Your task to perform on an android device: allow cookies in the chrome app Image 0: 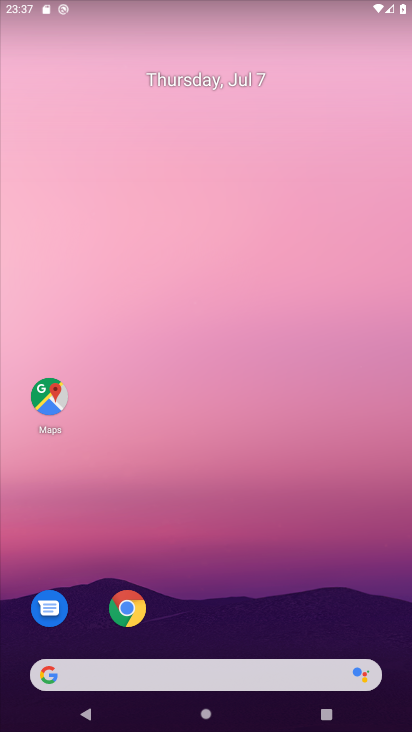
Step 0: drag from (237, 604) to (266, 147)
Your task to perform on an android device: allow cookies in the chrome app Image 1: 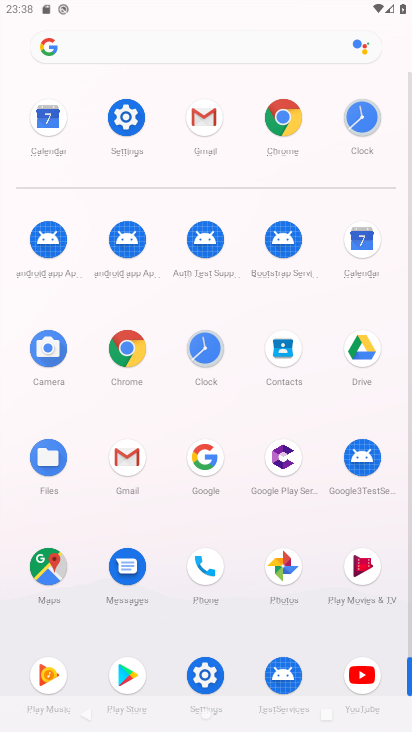
Step 1: click (284, 116)
Your task to perform on an android device: allow cookies in the chrome app Image 2: 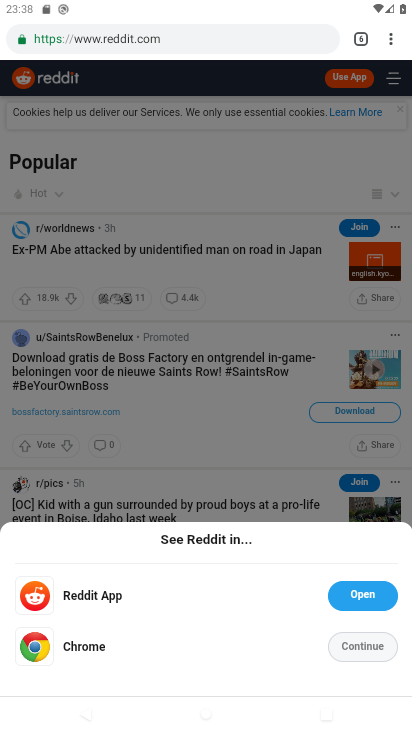
Step 2: click (298, 201)
Your task to perform on an android device: allow cookies in the chrome app Image 3: 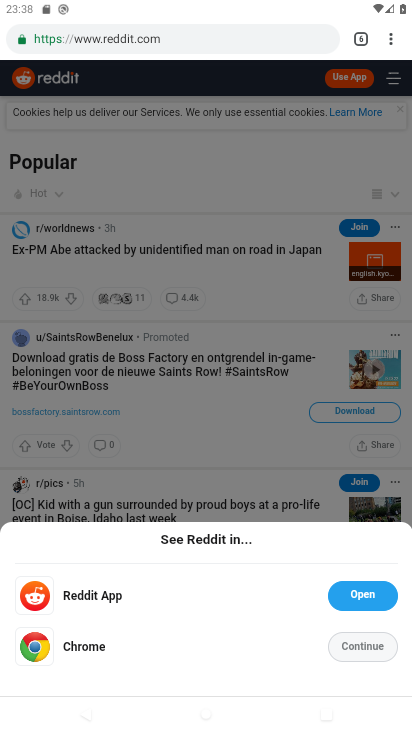
Step 3: click (386, 30)
Your task to perform on an android device: allow cookies in the chrome app Image 4: 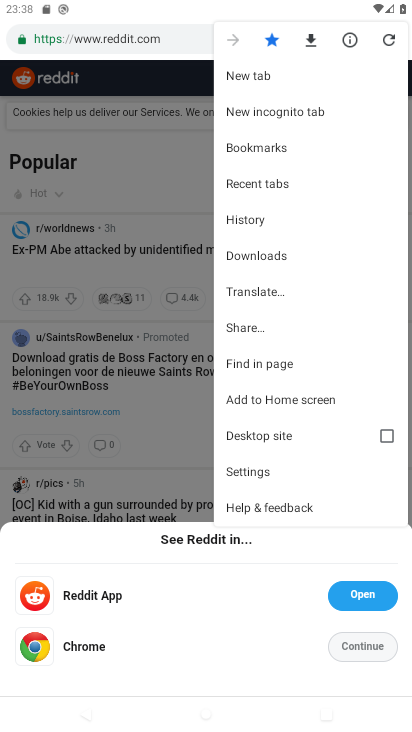
Step 4: click (265, 466)
Your task to perform on an android device: allow cookies in the chrome app Image 5: 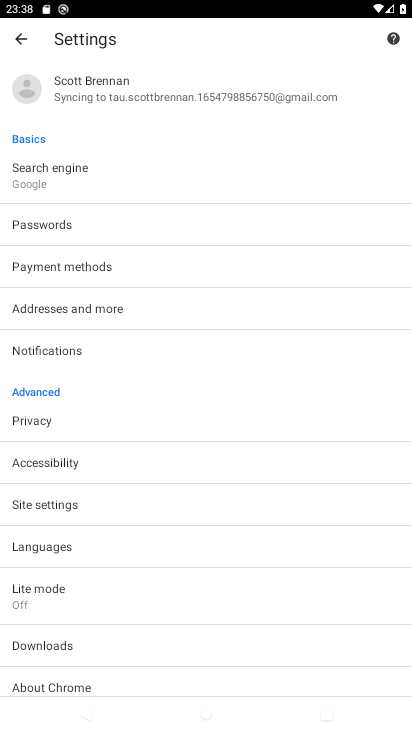
Step 5: click (88, 502)
Your task to perform on an android device: allow cookies in the chrome app Image 6: 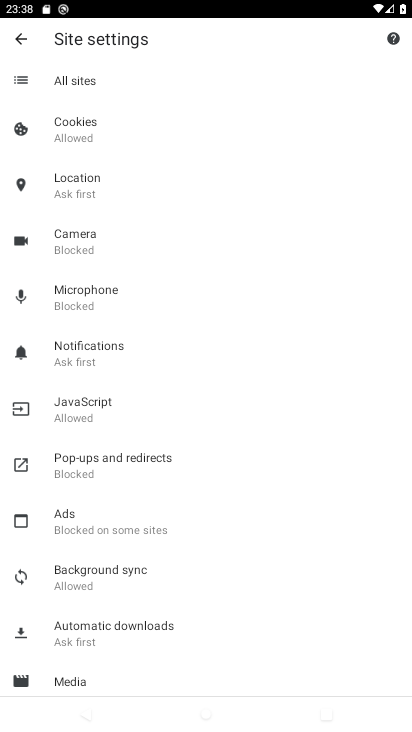
Step 6: click (90, 126)
Your task to perform on an android device: allow cookies in the chrome app Image 7: 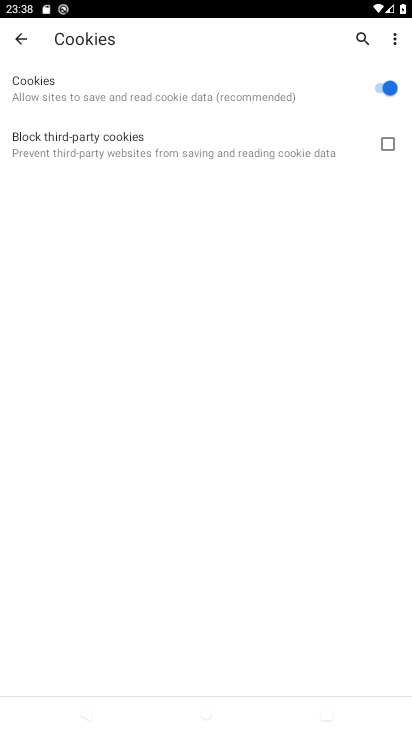
Step 7: click (15, 25)
Your task to perform on an android device: allow cookies in the chrome app Image 8: 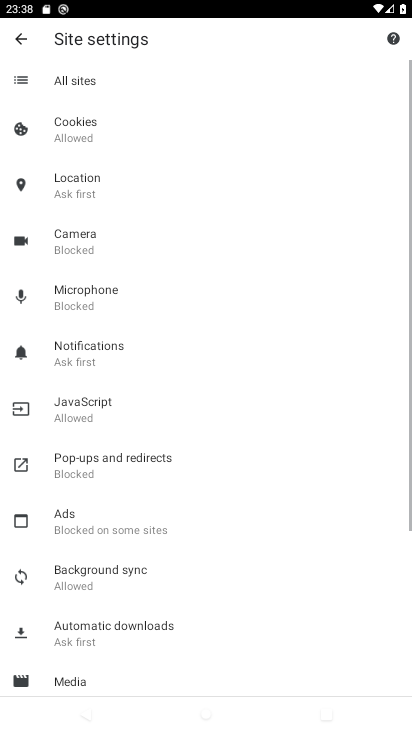
Step 8: click (93, 179)
Your task to perform on an android device: allow cookies in the chrome app Image 9: 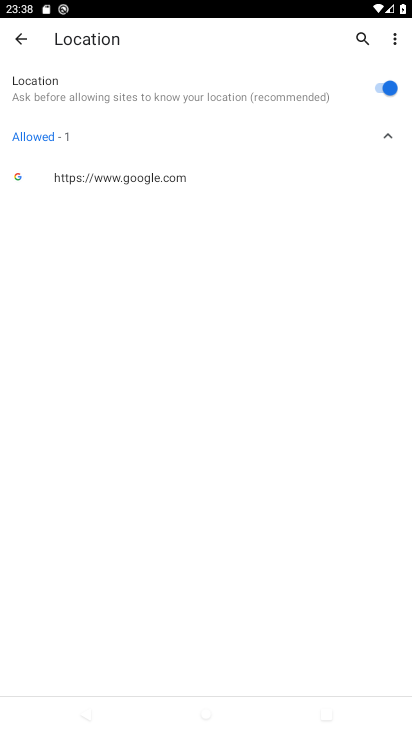
Step 9: click (20, 35)
Your task to perform on an android device: allow cookies in the chrome app Image 10: 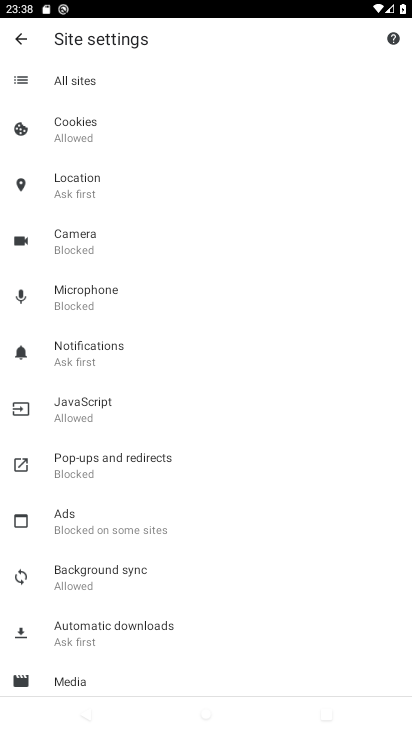
Step 10: click (100, 254)
Your task to perform on an android device: allow cookies in the chrome app Image 11: 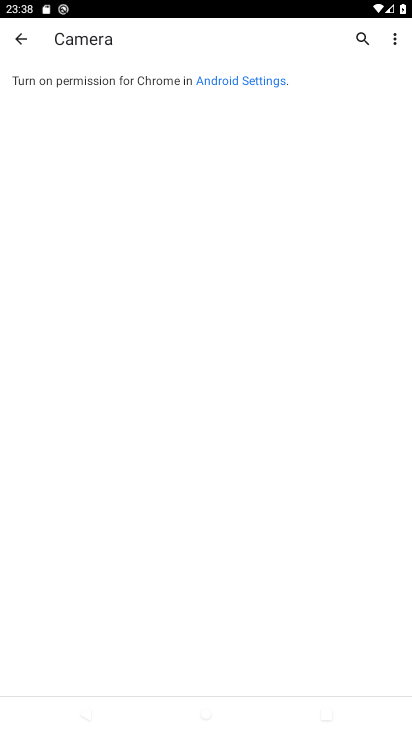
Step 11: click (23, 42)
Your task to perform on an android device: allow cookies in the chrome app Image 12: 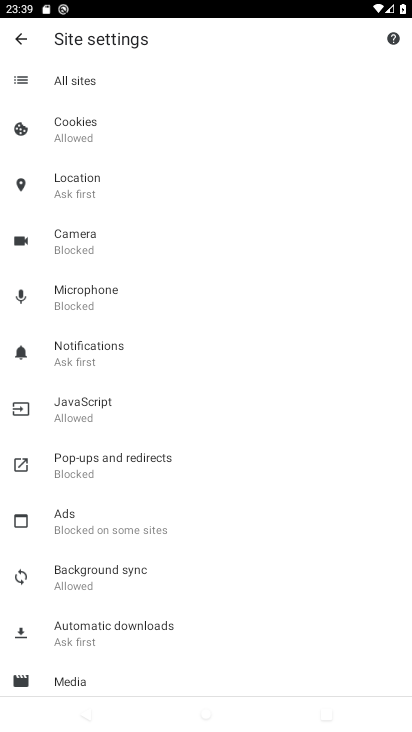
Step 12: click (120, 368)
Your task to perform on an android device: allow cookies in the chrome app Image 13: 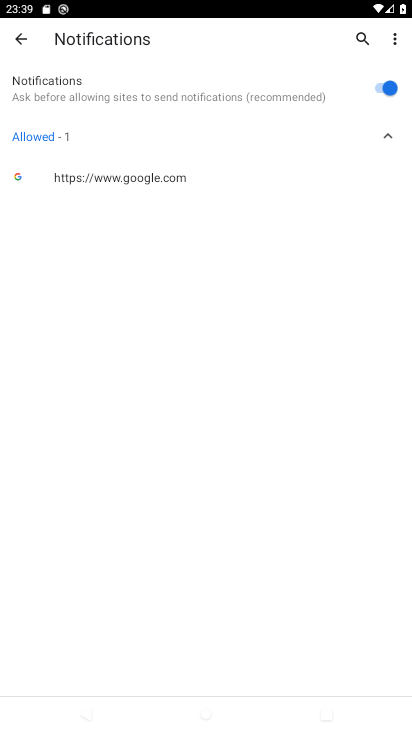
Step 13: task complete